Your task to perform on an android device: turn off sleep mode Image 0: 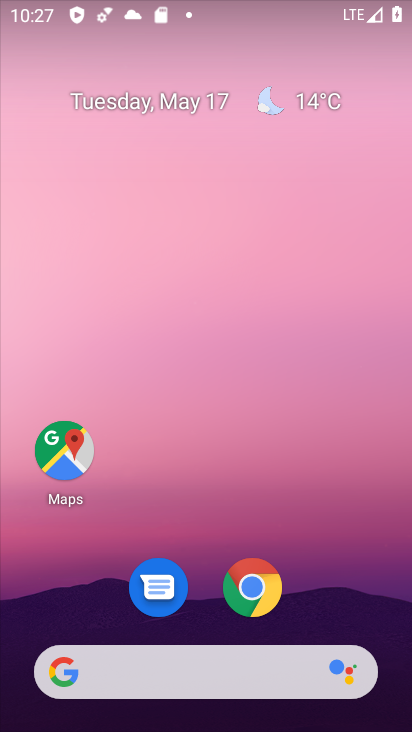
Step 0: drag from (246, 488) to (224, 298)
Your task to perform on an android device: turn off sleep mode Image 1: 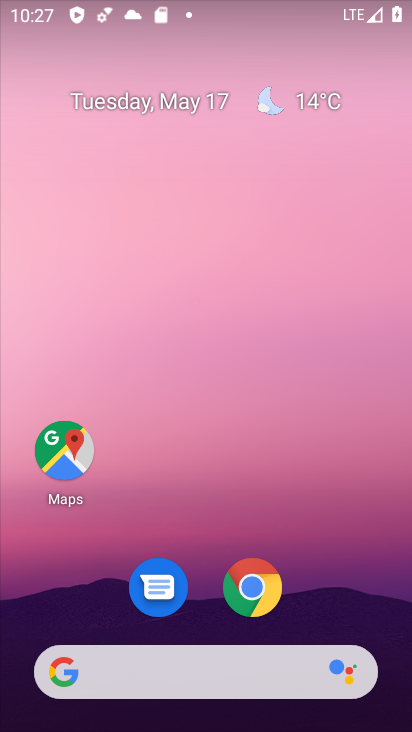
Step 1: drag from (294, 514) to (217, 206)
Your task to perform on an android device: turn off sleep mode Image 2: 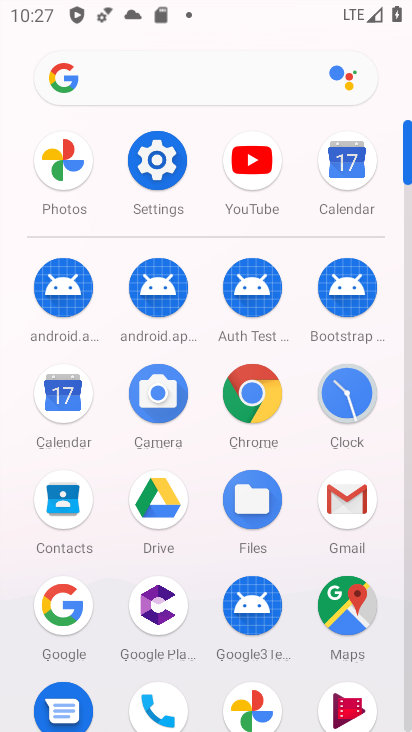
Step 2: click (167, 162)
Your task to perform on an android device: turn off sleep mode Image 3: 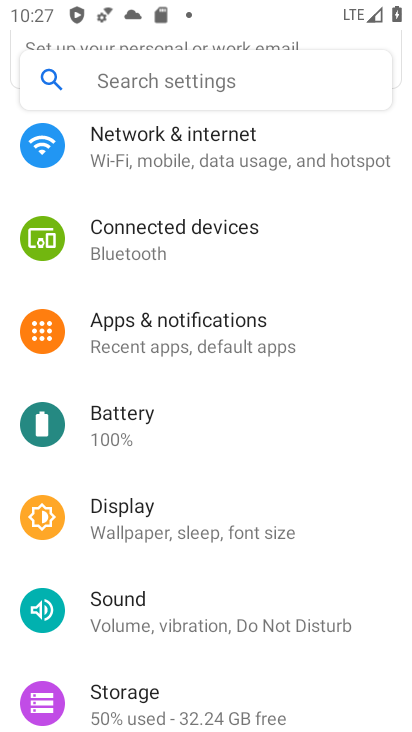
Step 3: click (173, 318)
Your task to perform on an android device: turn off sleep mode Image 4: 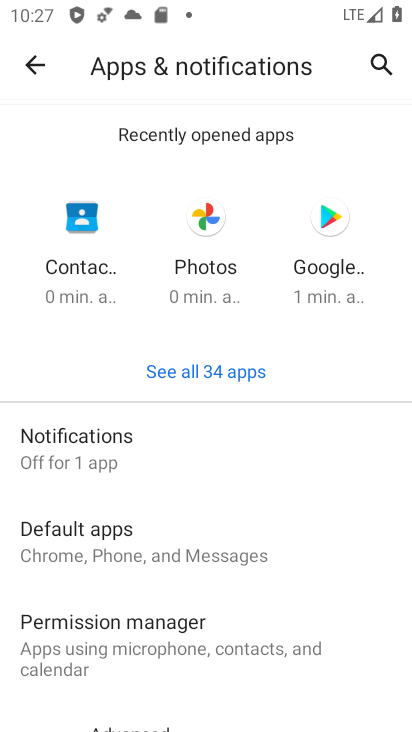
Step 4: drag from (188, 696) to (225, 294)
Your task to perform on an android device: turn off sleep mode Image 5: 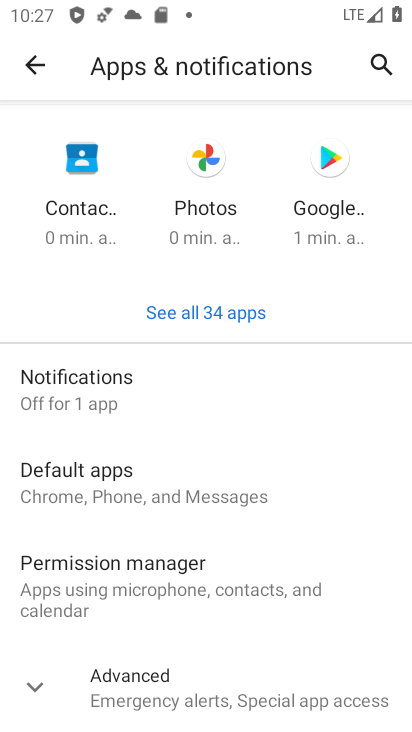
Step 5: click (172, 693)
Your task to perform on an android device: turn off sleep mode Image 6: 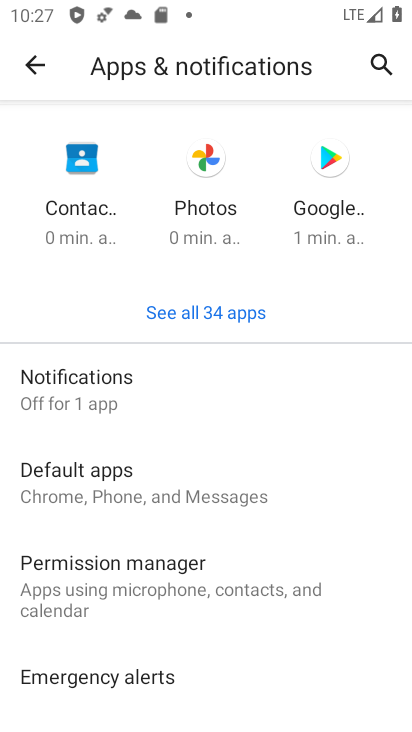
Step 6: drag from (112, 649) to (97, 350)
Your task to perform on an android device: turn off sleep mode Image 7: 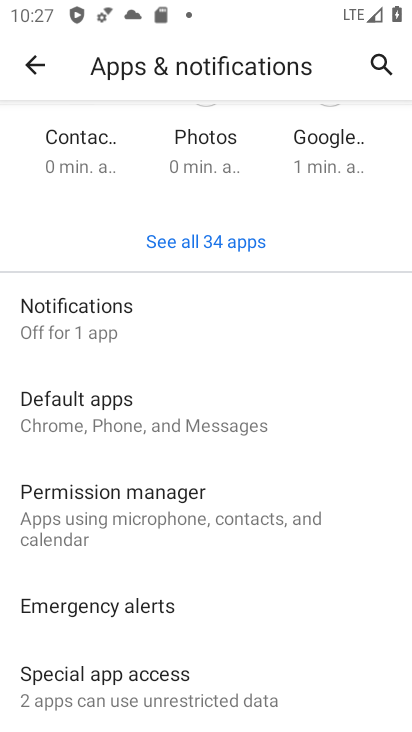
Step 7: click (36, 70)
Your task to perform on an android device: turn off sleep mode Image 8: 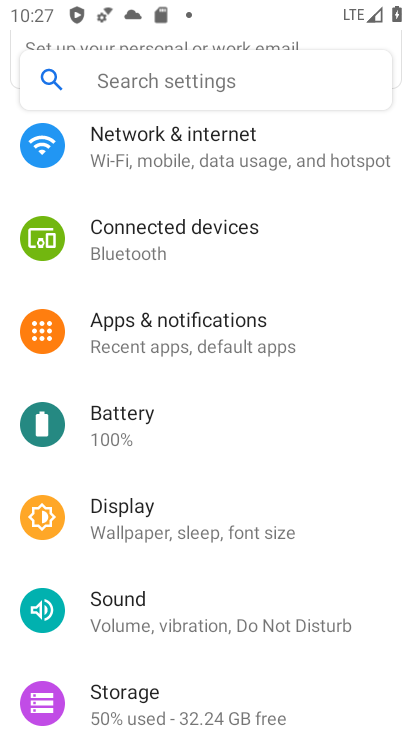
Step 8: click (195, 531)
Your task to perform on an android device: turn off sleep mode Image 9: 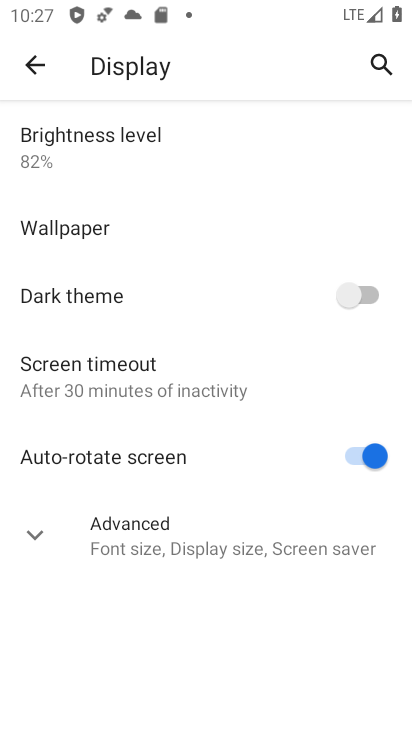
Step 9: click (195, 531)
Your task to perform on an android device: turn off sleep mode Image 10: 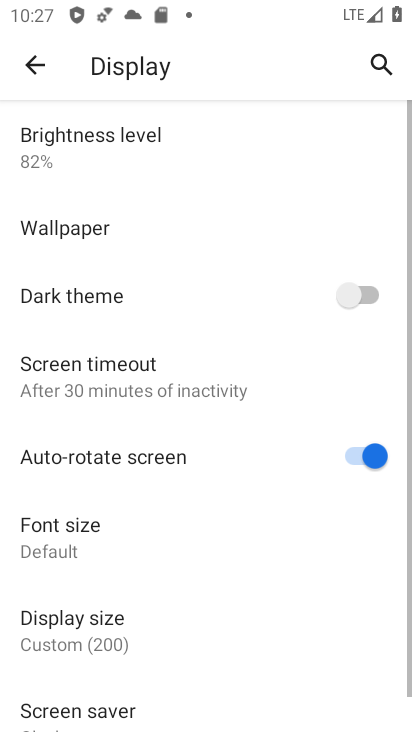
Step 10: task complete